Your task to perform on an android device: turn off priority inbox in the gmail app Image 0: 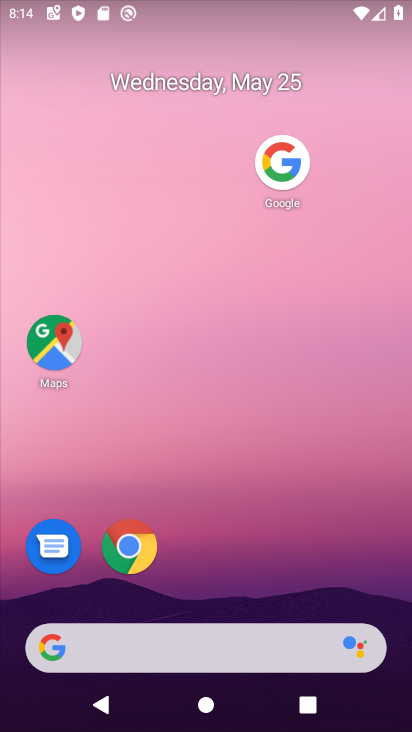
Step 0: press home button
Your task to perform on an android device: turn off priority inbox in the gmail app Image 1: 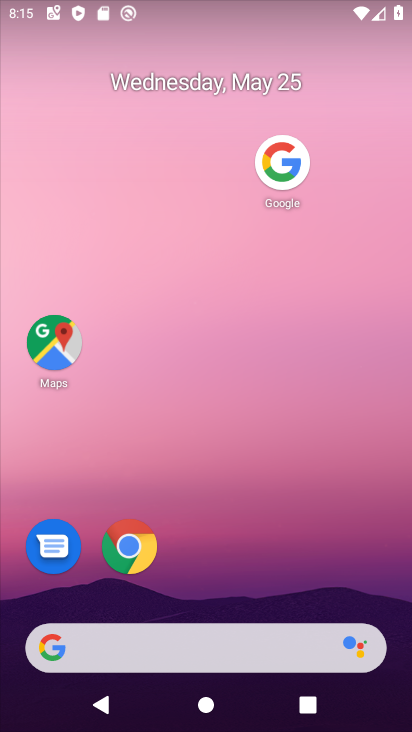
Step 1: drag from (173, 653) to (306, 126)
Your task to perform on an android device: turn off priority inbox in the gmail app Image 2: 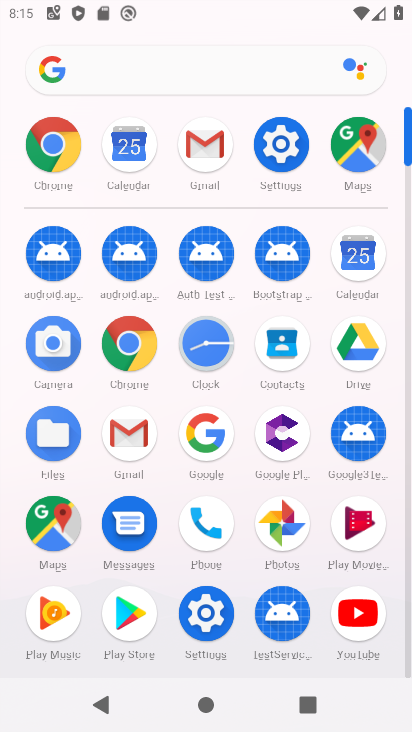
Step 2: click (204, 150)
Your task to perform on an android device: turn off priority inbox in the gmail app Image 3: 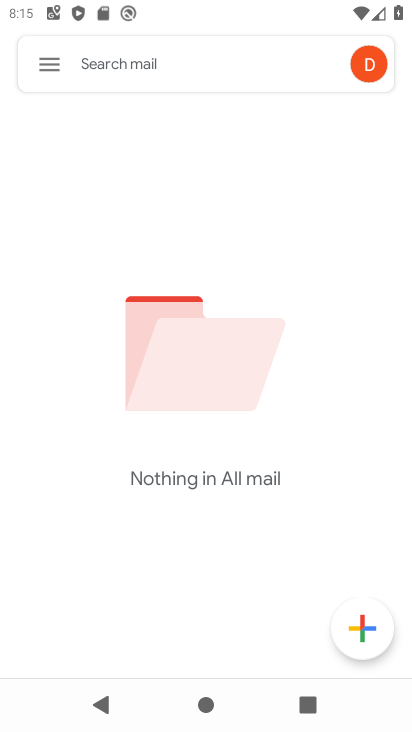
Step 3: click (55, 61)
Your task to perform on an android device: turn off priority inbox in the gmail app Image 4: 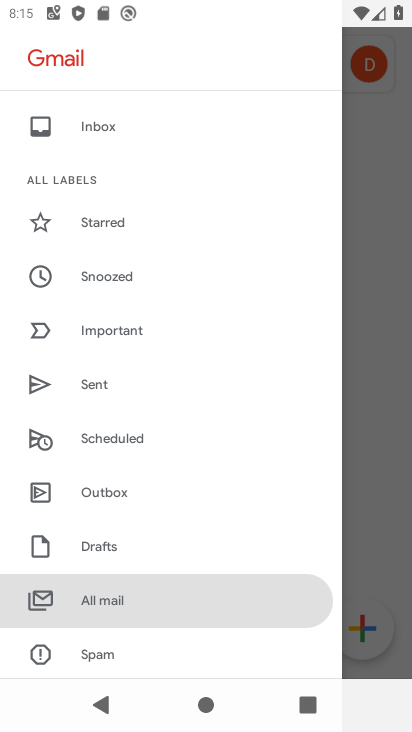
Step 4: drag from (191, 538) to (233, 149)
Your task to perform on an android device: turn off priority inbox in the gmail app Image 5: 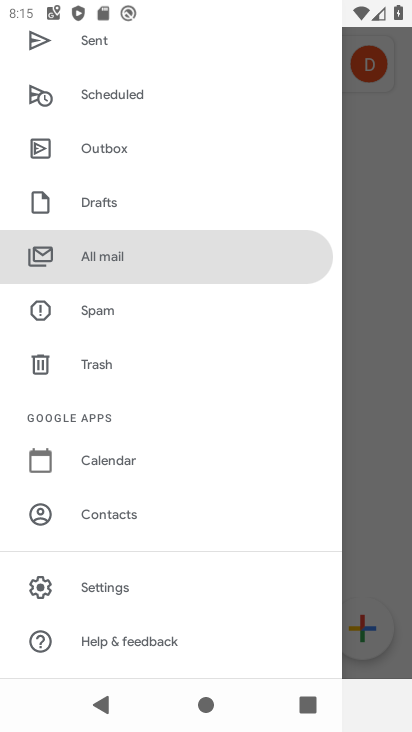
Step 5: click (120, 580)
Your task to perform on an android device: turn off priority inbox in the gmail app Image 6: 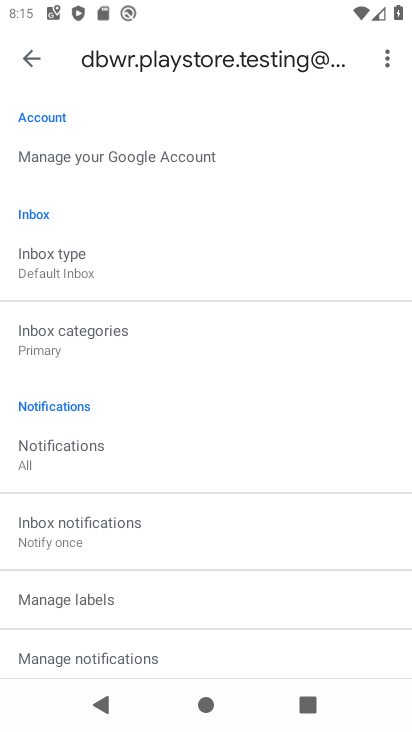
Step 6: click (71, 275)
Your task to perform on an android device: turn off priority inbox in the gmail app Image 7: 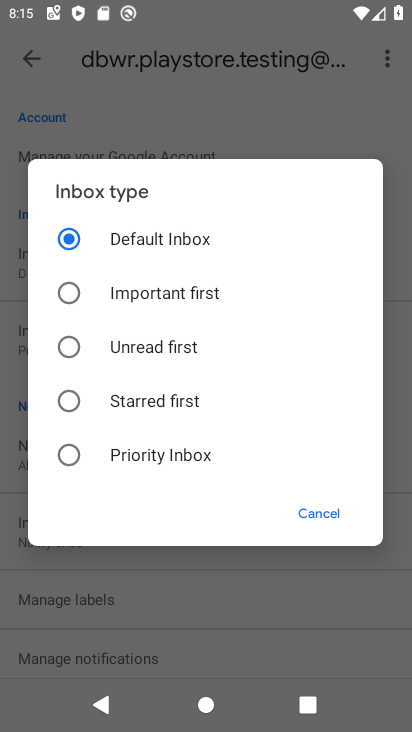
Step 7: task complete